Your task to perform on an android device: Find coffee shops on Maps Image 0: 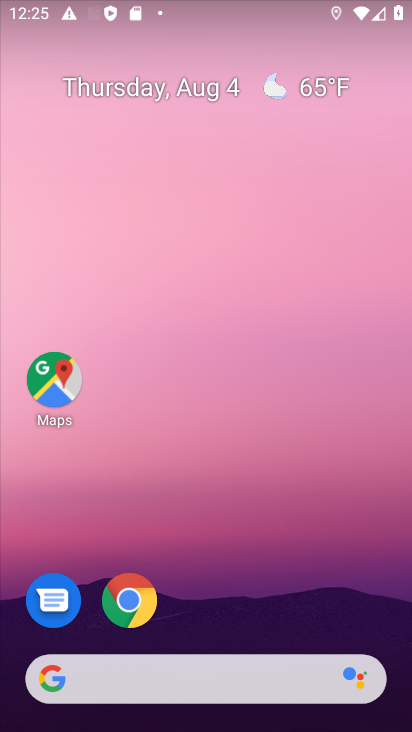
Step 0: click (41, 356)
Your task to perform on an android device: Find coffee shops on Maps Image 1: 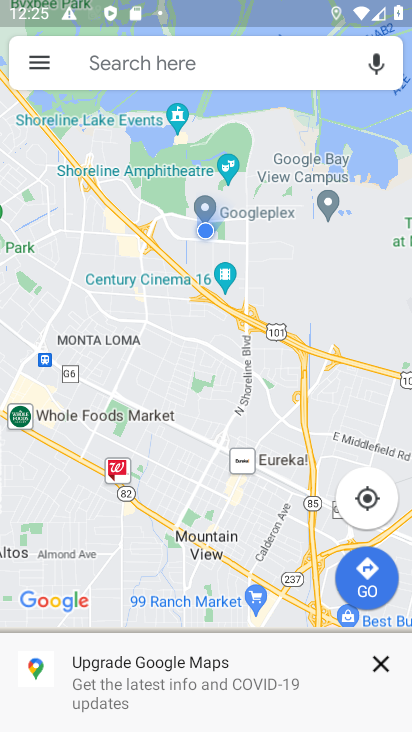
Step 1: click (265, 74)
Your task to perform on an android device: Find coffee shops on Maps Image 2: 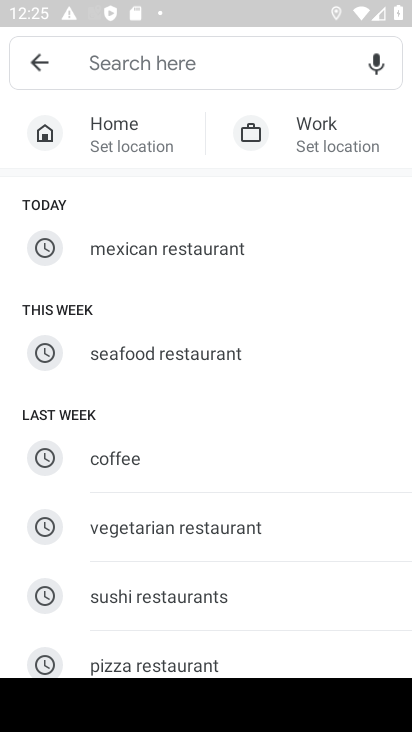
Step 2: click (143, 445)
Your task to perform on an android device: Find coffee shops on Maps Image 3: 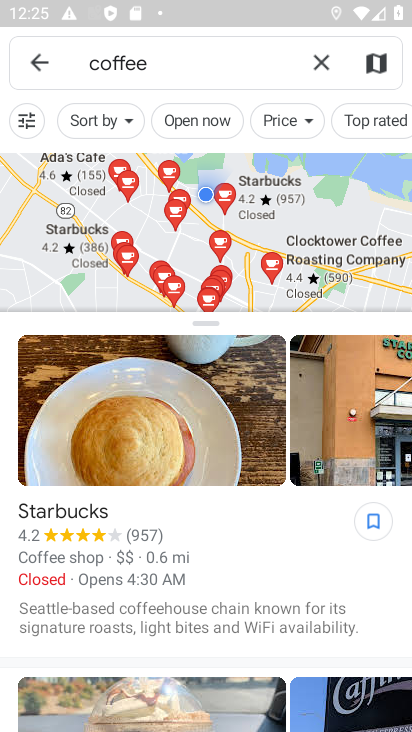
Step 3: task complete